Your task to perform on an android device: Go to battery settings Image 0: 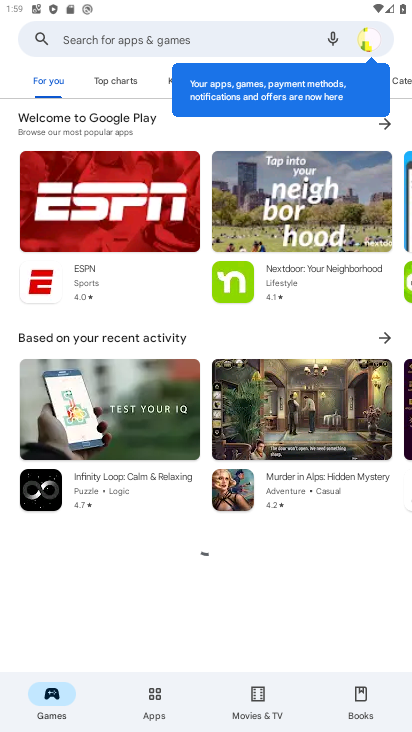
Step 0: press home button
Your task to perform on an android device: Go to battery settings Image 1: 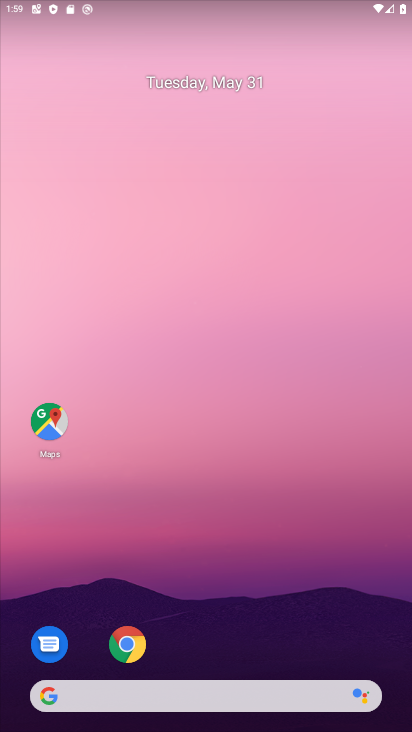
Step 1: drag from (366, 549) to (324, 319)
Your task to perform on an android device: Go to battery settings Image 2: 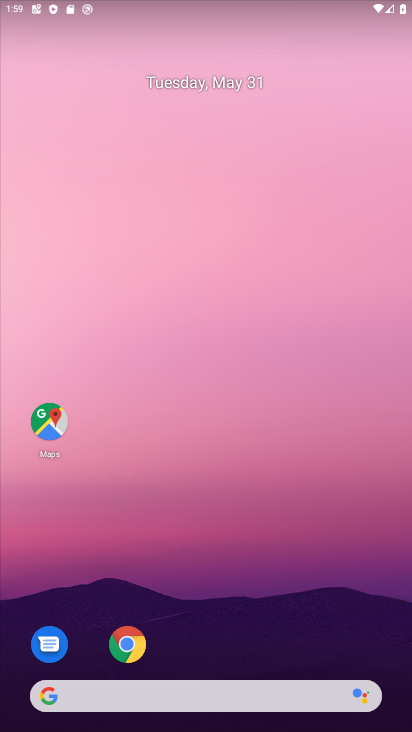
Step 2: drag from (384, 629) to (307, 158)
Your task to perform on an android device: Go to battery settings Image 3: 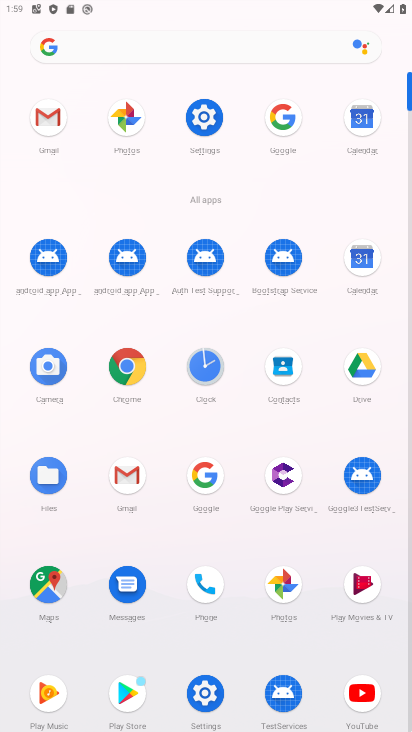
Step 3: click (204, 699)
Your task to perform on an android device: Go to battery settings Image 4: 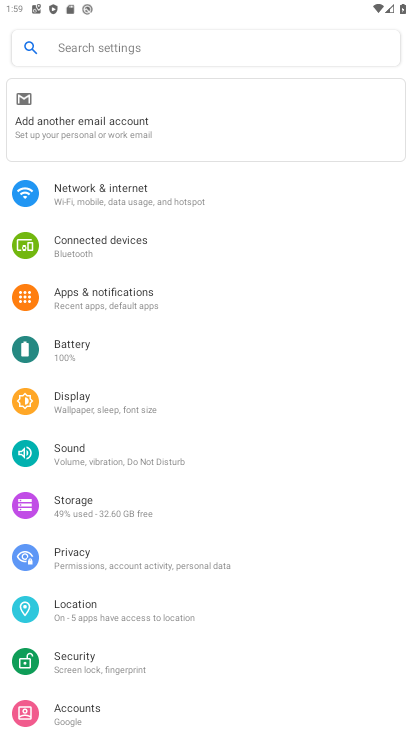
Step 4: click (80, 345)
Your task to perform on an android device: Go to battery settings Image 5: 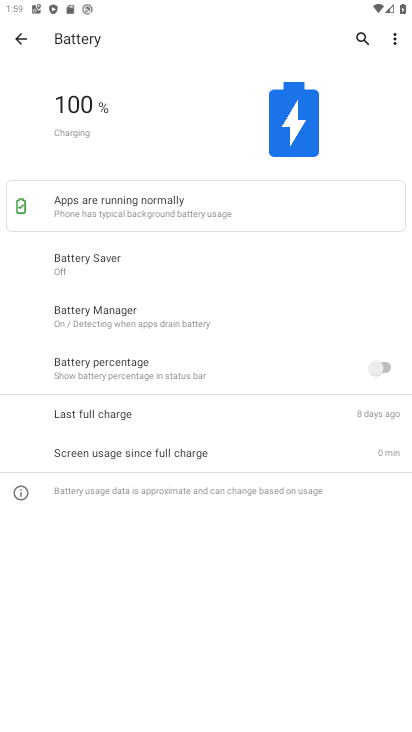
Step 5: task complete